Your task to perform on an android device: Go to eBay Image 0: 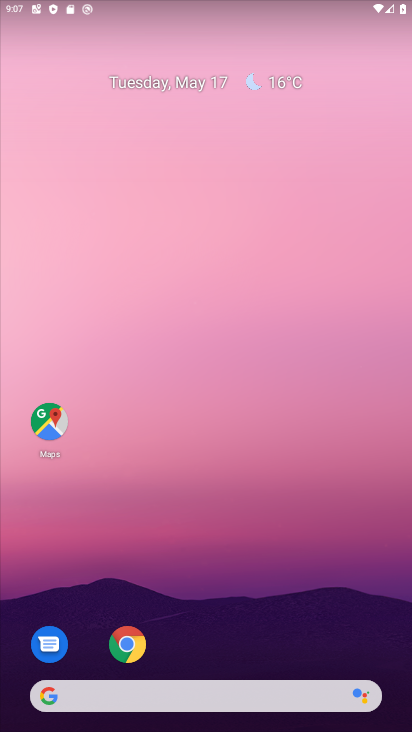
Step 0: click (128, 650)
Your task to perform on an android device: Go to eBay Image 1: 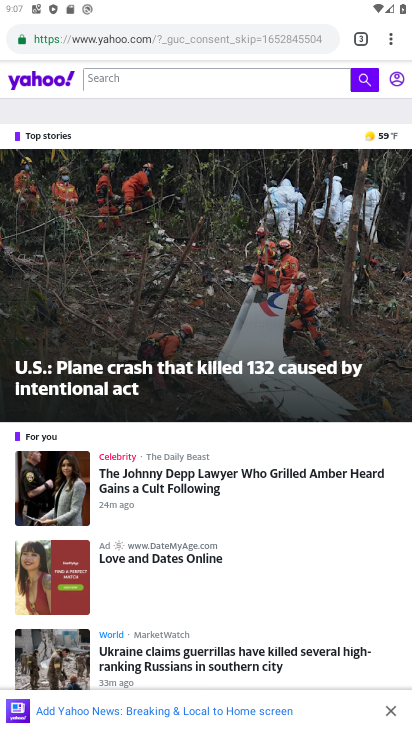
Step 1: click (356, 33)
Your task to perform on an android device: Go to eBay Image 2: 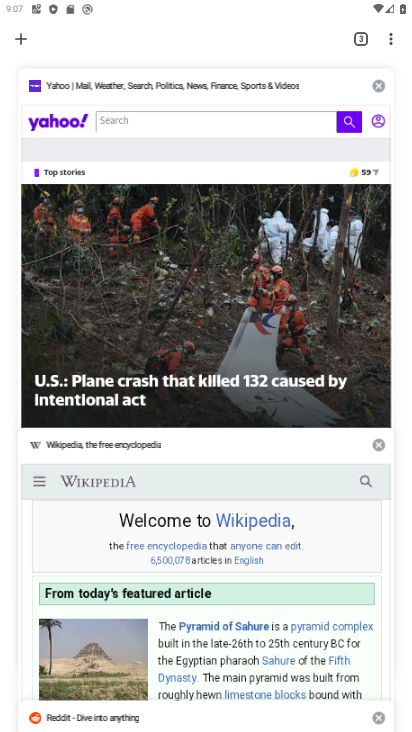
Step 2: click (18, 37)
Your task to perform on an android device: Go to eBay Image 3: 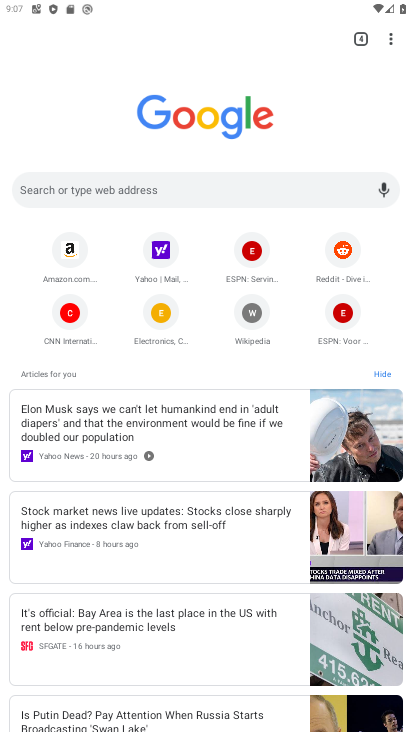
Step 3: click (114, 191)
Your task to perform on an android device: Go to eBay Image 4: 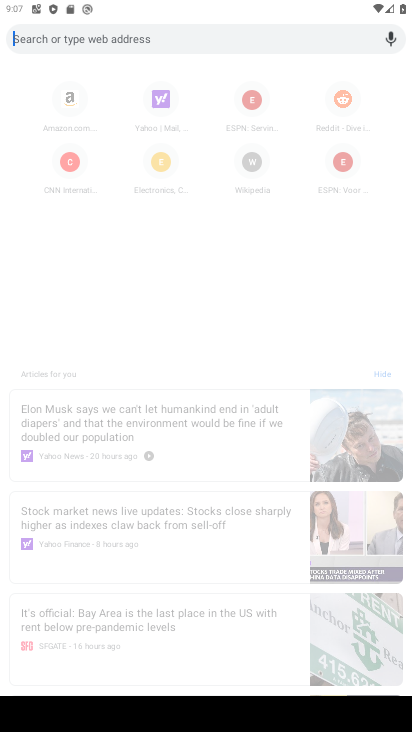
Step 4: type "ebay"
Your task to perform on an android device: Go to eBay Image 5: 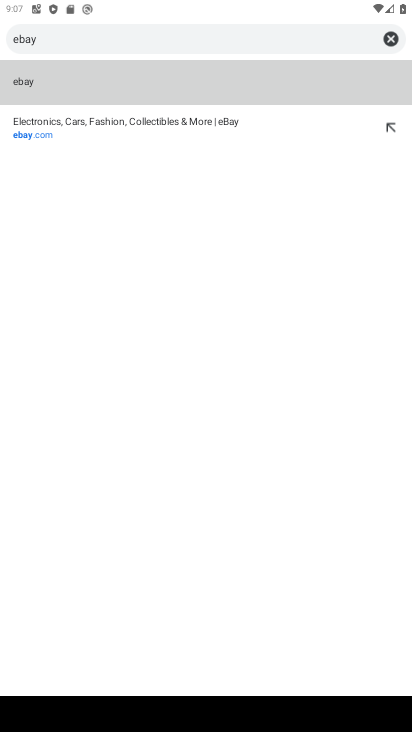
Step 5: click (47, 124)
Your task to perform on an android device: Go to eBay Image 6: 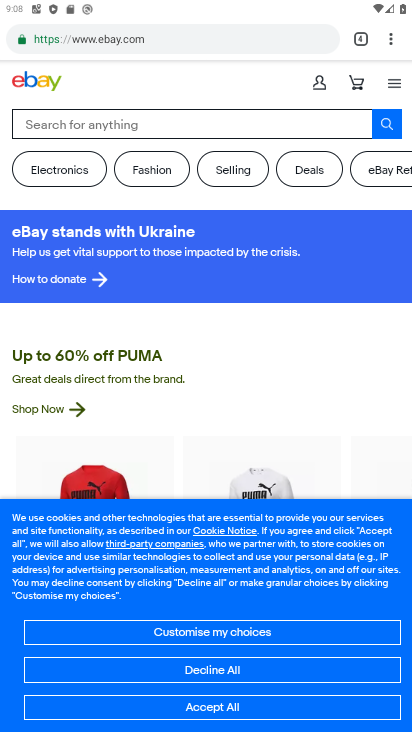
Step 6: task complete